Your task to perform on an android device: install app "Spotify" Image 0: 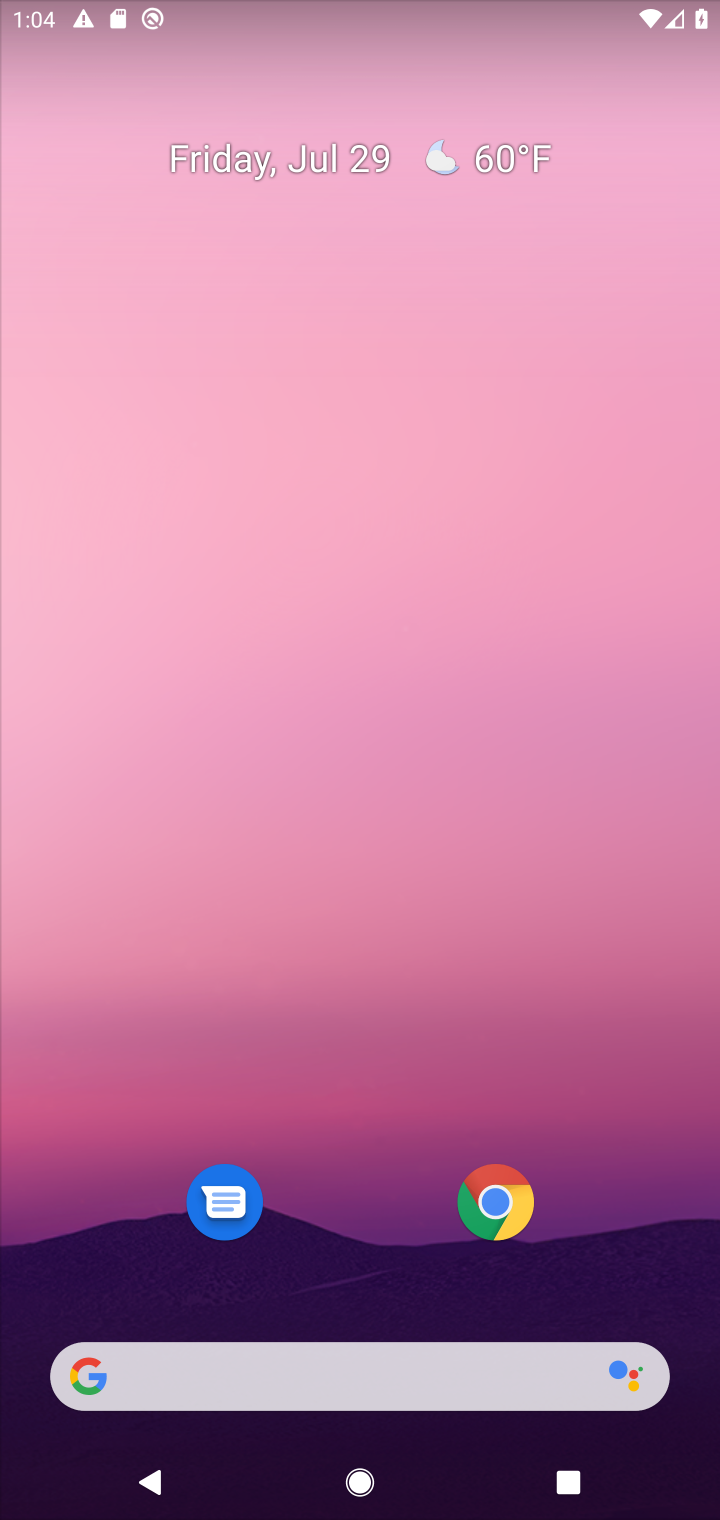
Step 0: click (406, 1375)
Your task to perform on an android device: install app "Spotify" Image 1: 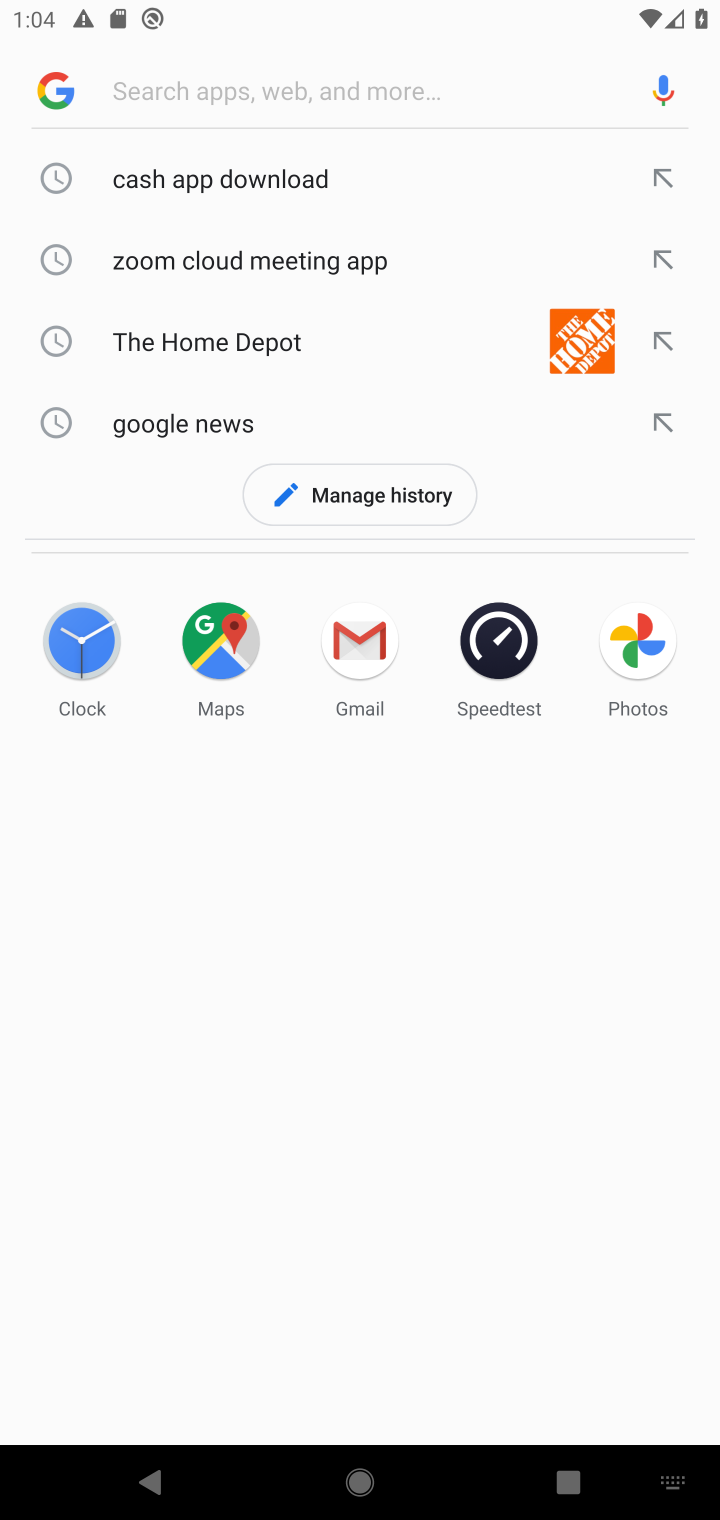
Step 1: type "spotify"
Your task to perform on an android device: install app "Spotify" Image 2: 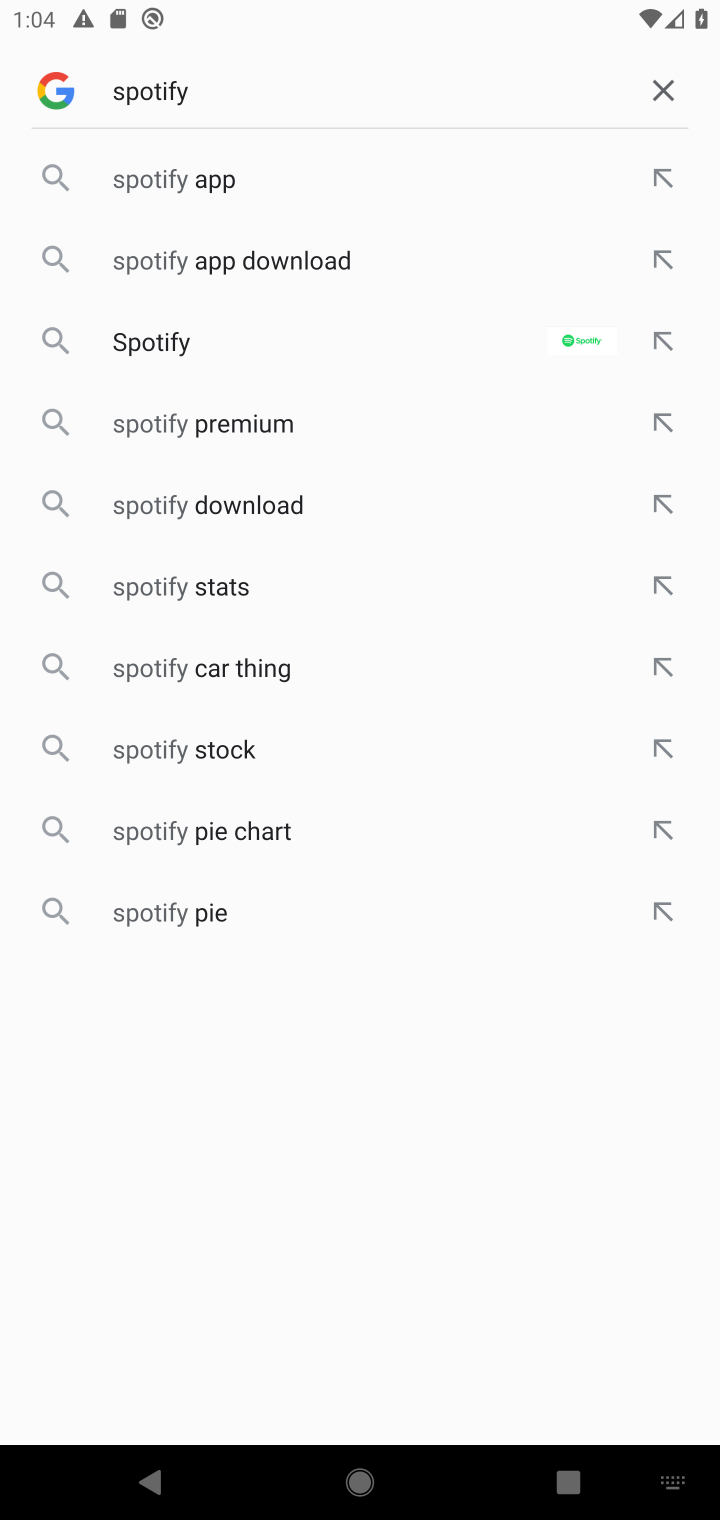
Step 2: click (195, 188)
Your task to perform on an android device: install app "Spotify" Image 3: 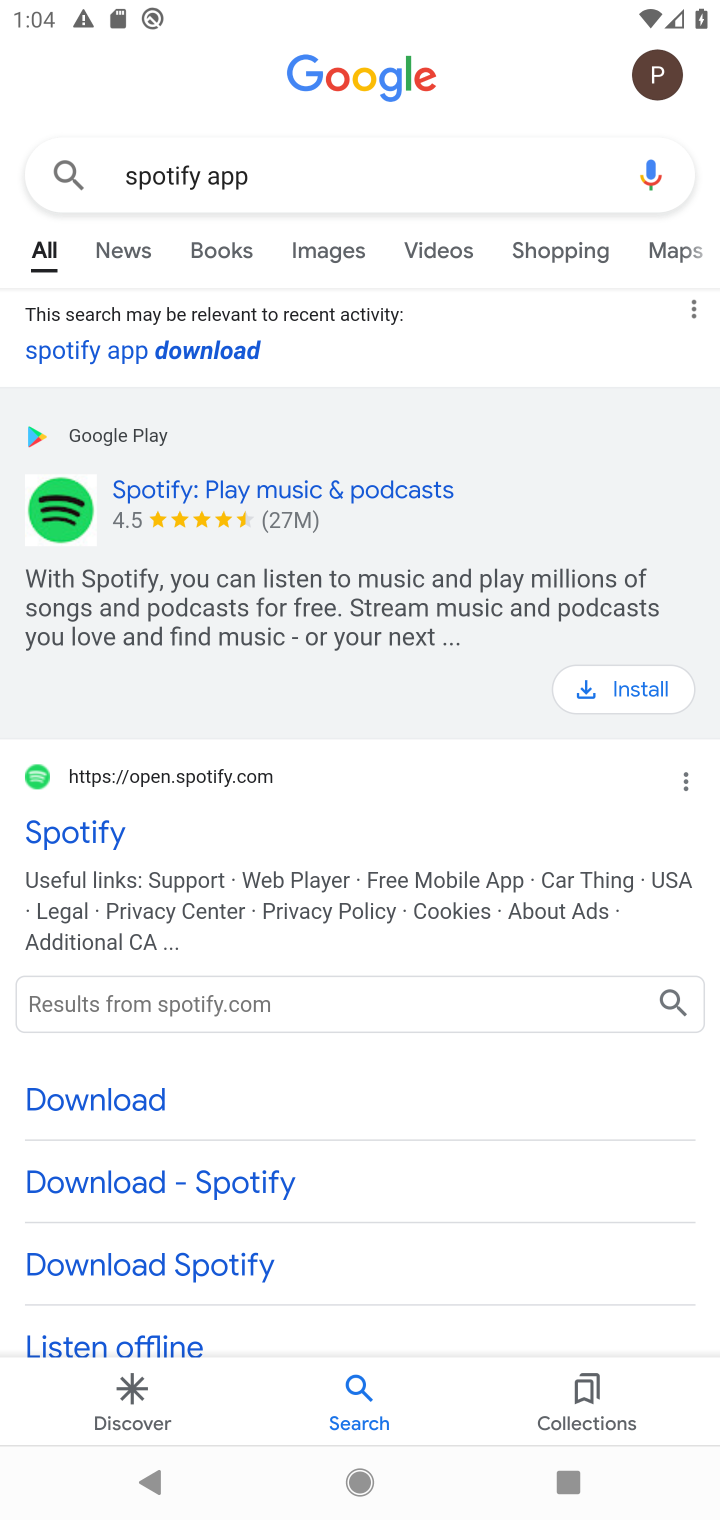
Step 3: click (606, 693)
Your task to perform on an android device: install app "Spotify" Image 4: 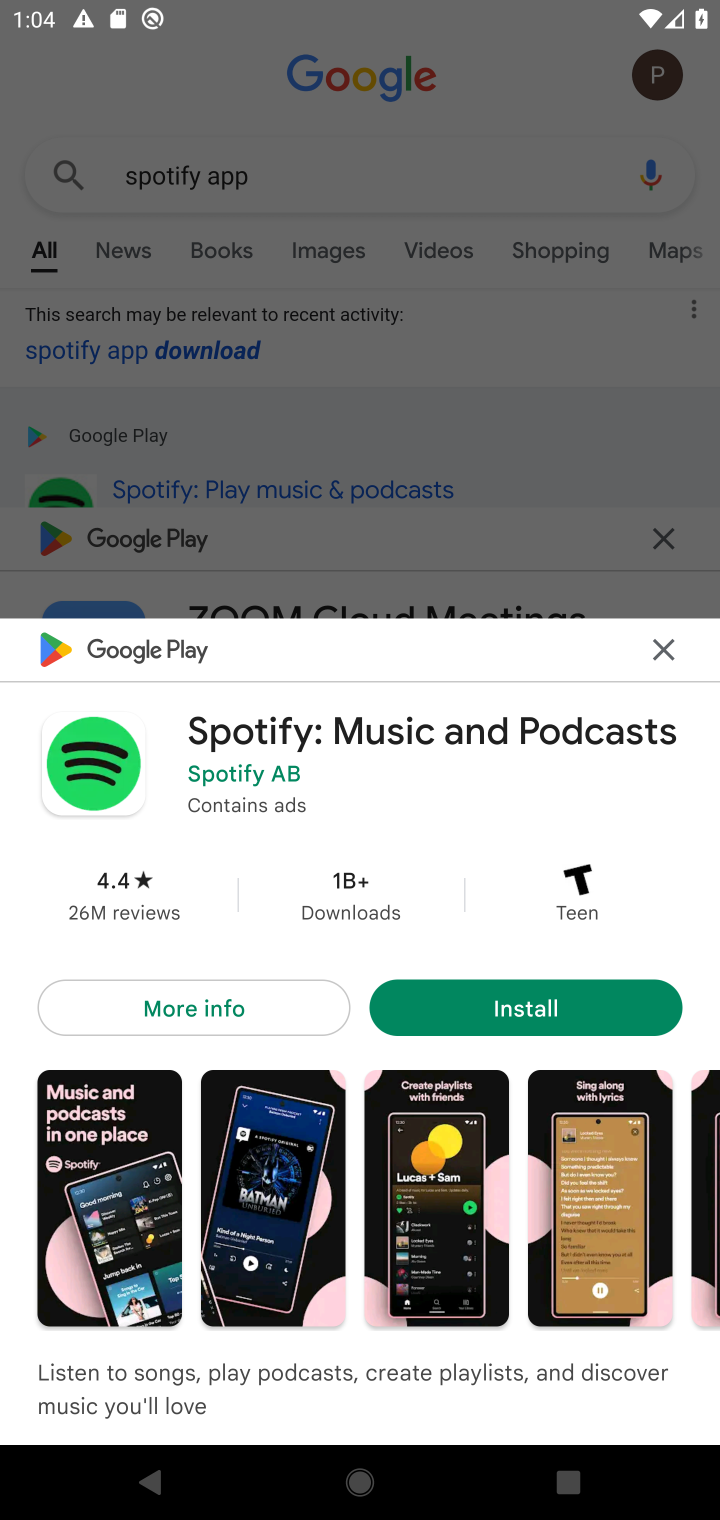
Step 4: click (597, 984)
Your task to perform on an android device: install app "Spotify" Image 5: 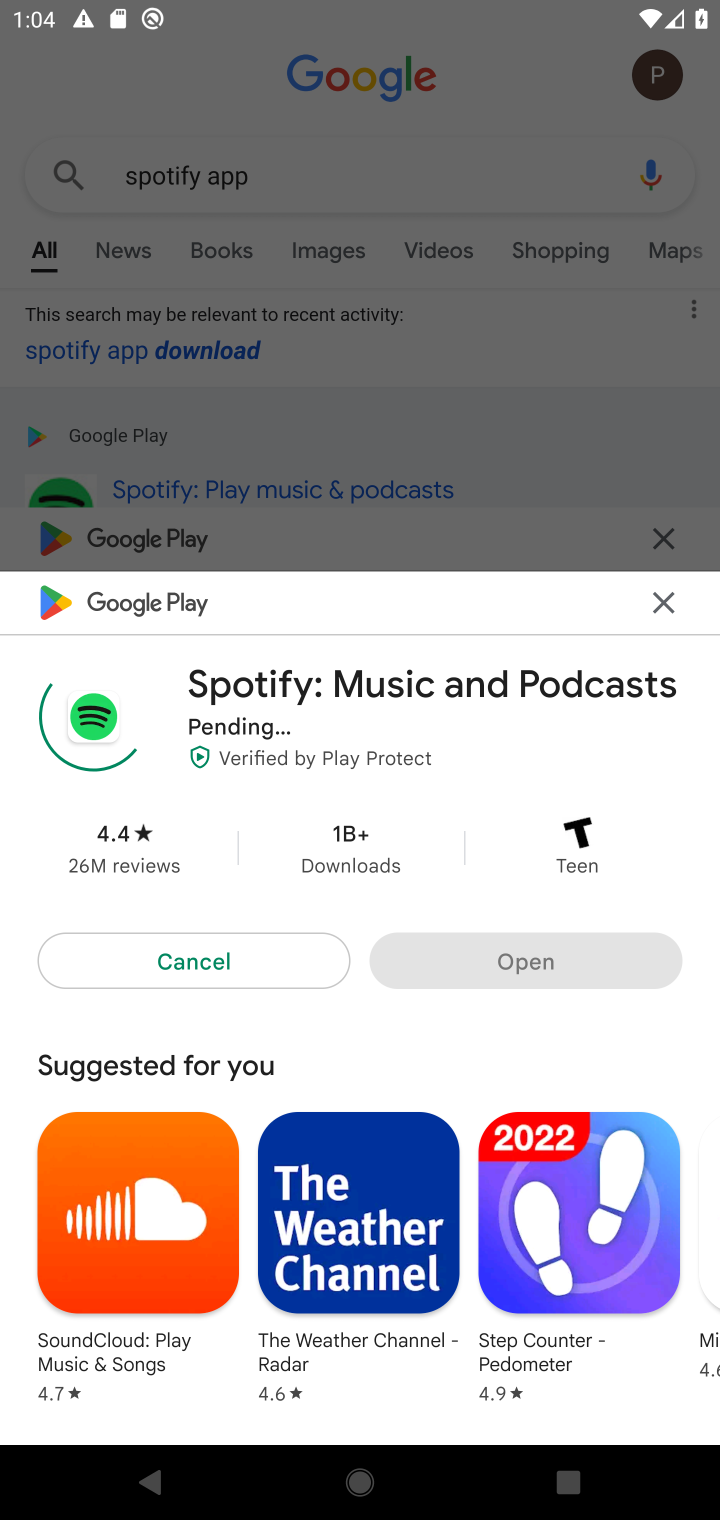
Step 5: task complete